Your task to perform on an android device: turn off airplane mode Image 0: 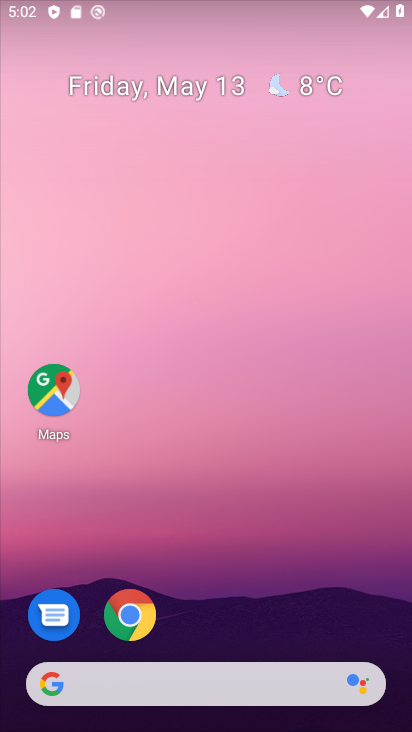
Step 0: drag from (219, 460) to (208, 25)
Your task to perform on an android device: turn off airplane mode Image 1: 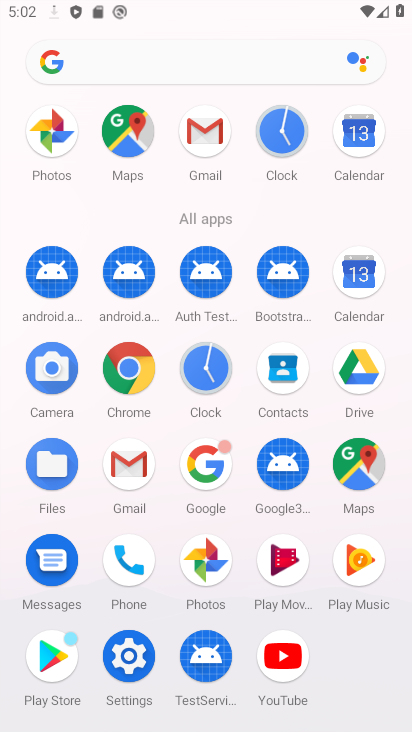
Step 1: drag from (10, 515) to (23, 146)
Your task to perform on an android device: turn off airplane mode Image 2: 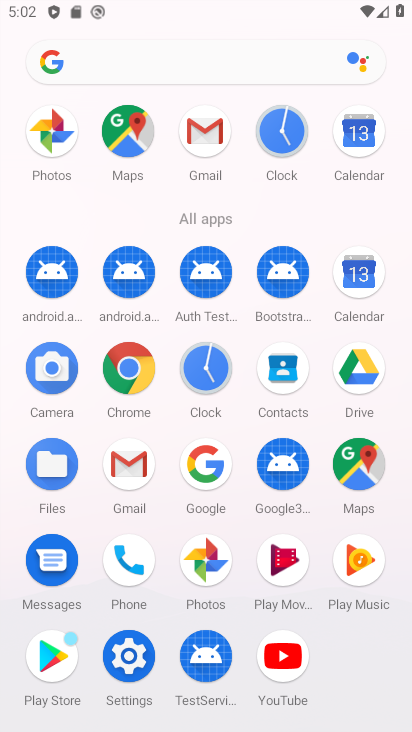
Step 2: click (128, 657)
Your task to perform on an android device: turn off airplane mode Image 3: 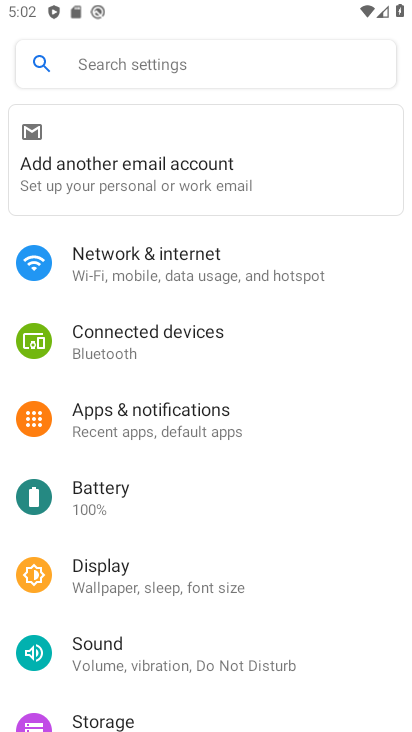
Step 3: click (202, 279)
Your task to perform on an android device: turn off airplane mode Image 4: 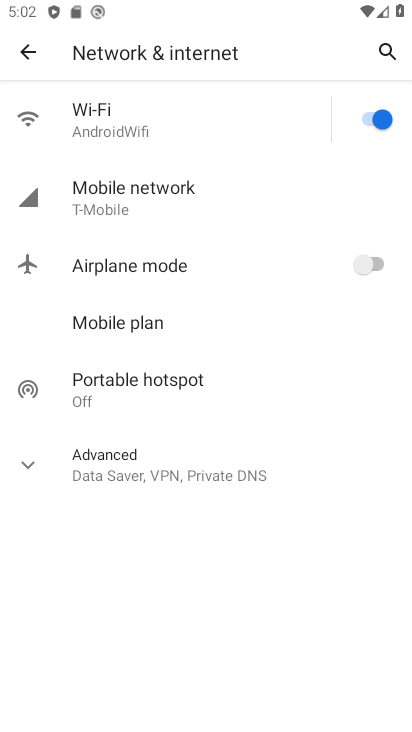
Step 4: task complete